Your task to perform on an android device: search for starred emails in the gmail app Image 0: 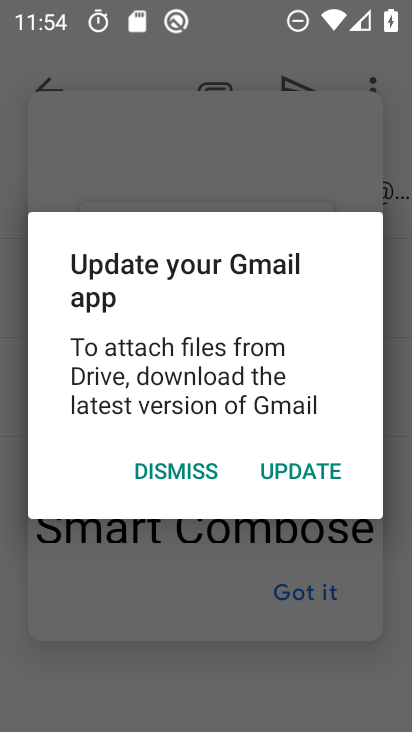
Step 0: press home button
Your task to perform on an android device: search for starred emails in the gmail app Image 1: 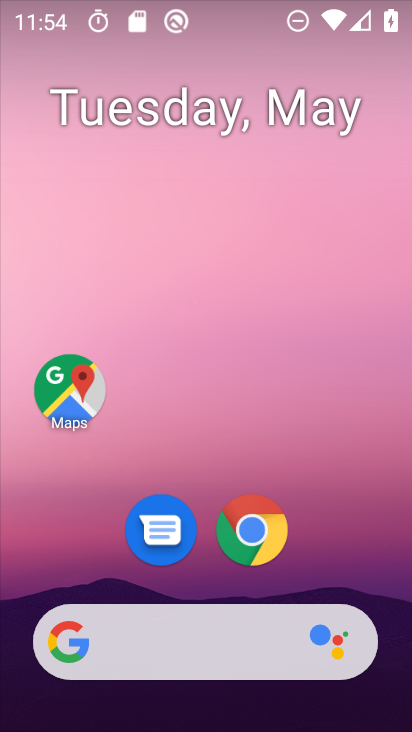
Step 1: drag from (269, 587) to (255, 128)
Your task to perform on an android device: search for starred emails in the gmail app Image 2: 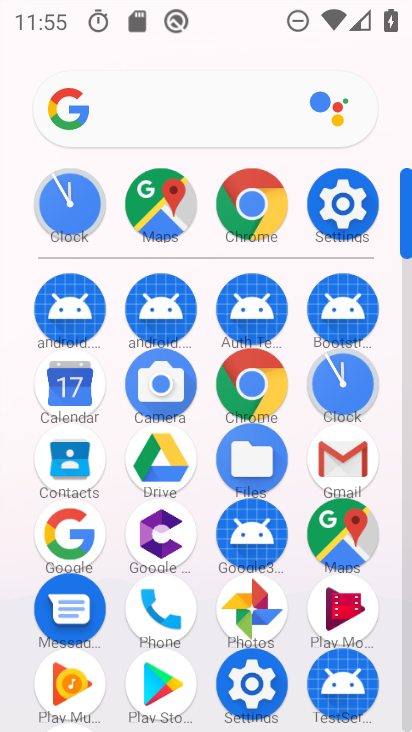
Step 2: click (324, 473)
Your task to perform on an android device: search for starred emails in the gmail app Image 3: 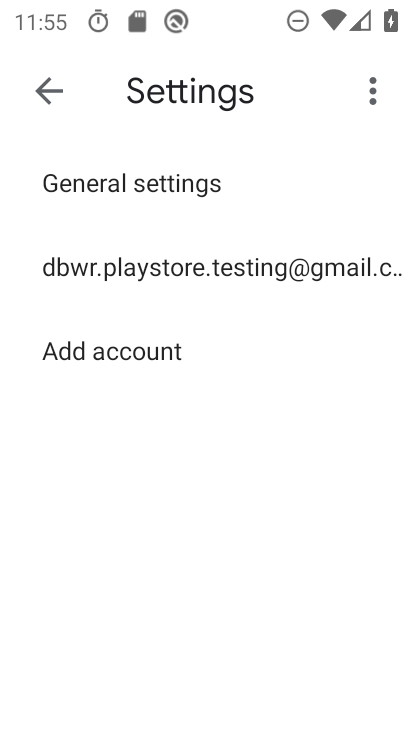
Step 3: press back button
Your task to perform on an android device: search for starred emails in the gmail app Image 4: 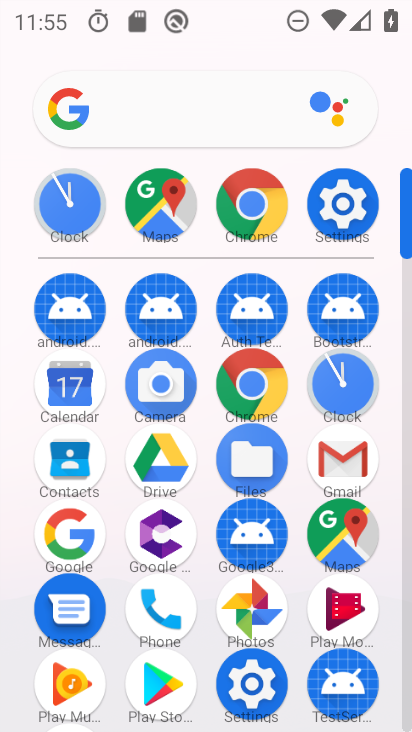
Step 4: click (314, 458)
Your task to perform on an android device: search for starred emails in the gmail app Image 5: 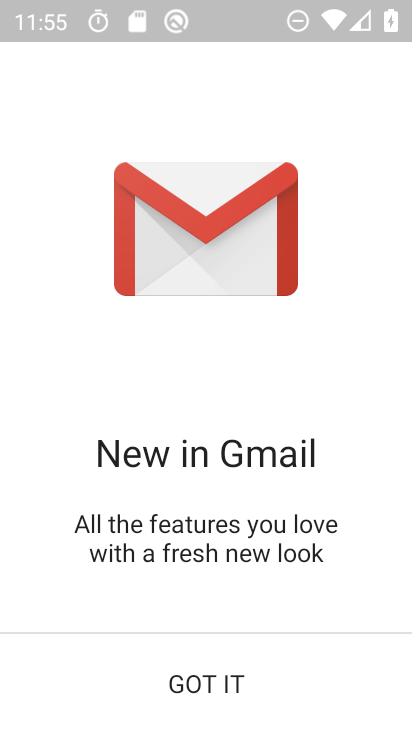
Step 5: click (291, 672)
Your task to perform on an android device: search for starred emails in the gmail app Image 6: 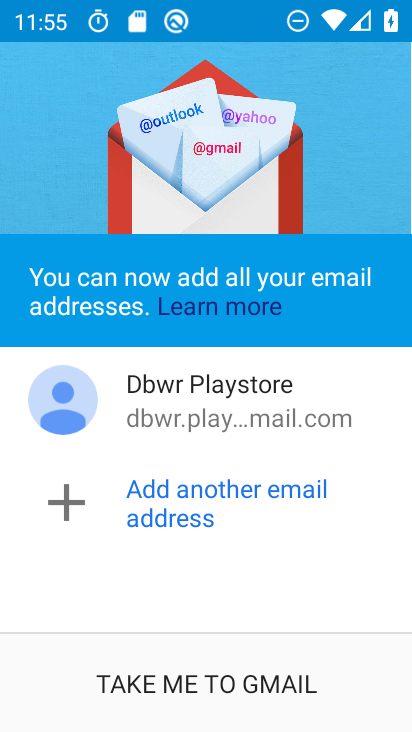
Step 6: click (291, 672)
Your task to perform on an android device: search for starred emails in the gmail app Image 7: 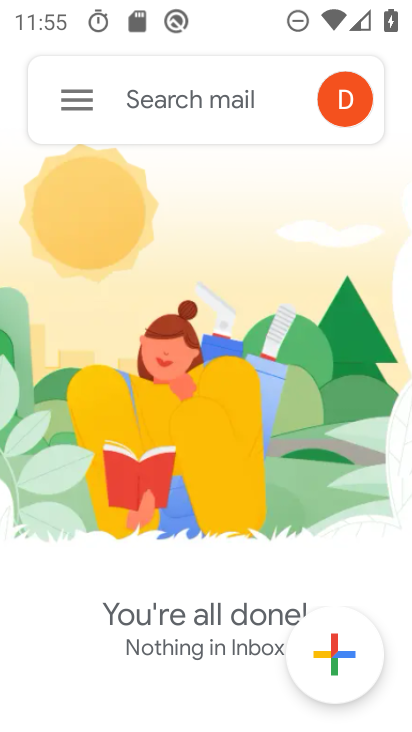
Step 7: click (81, 94)
Your task to perform on an android device: search for starred emails in the gmail app Image 8: 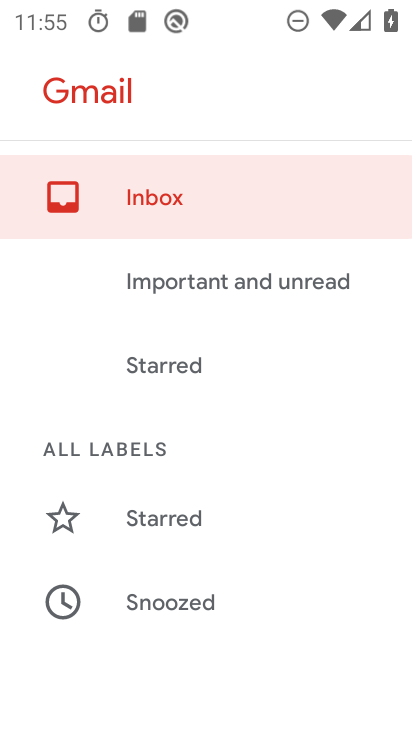
Step 8: click (181, 531)
Your task to perform on an android device: search for starred emails in the gmail app Image 9: 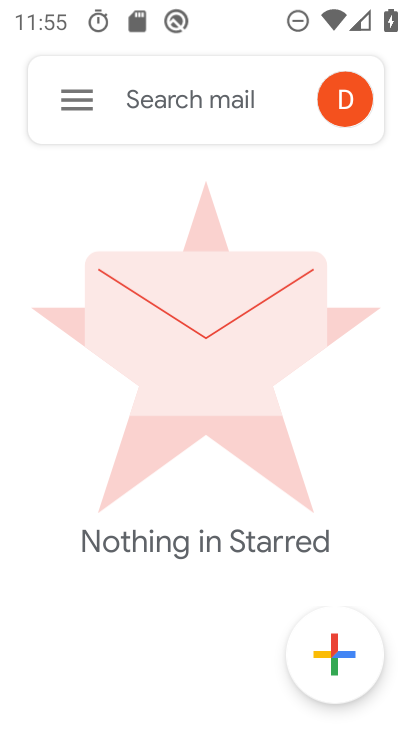
Step 9: task complete